Your task to perform on an android device: turn smart compose on in the gmail app Image 0: 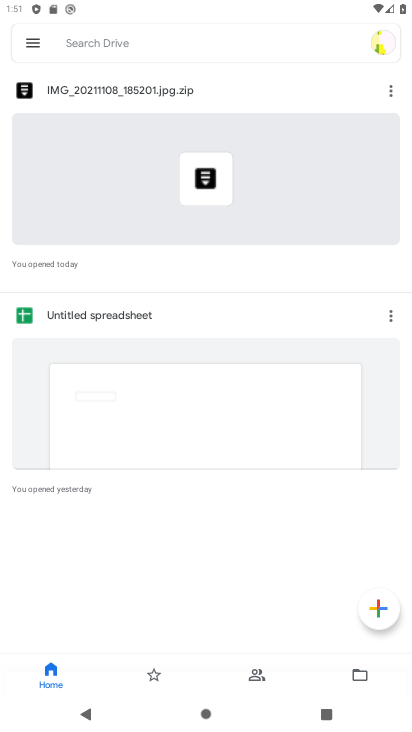
Step 0: click (219, 711)
Your task to perform on an android device: turn smart compose on in the gmail app Image 1: 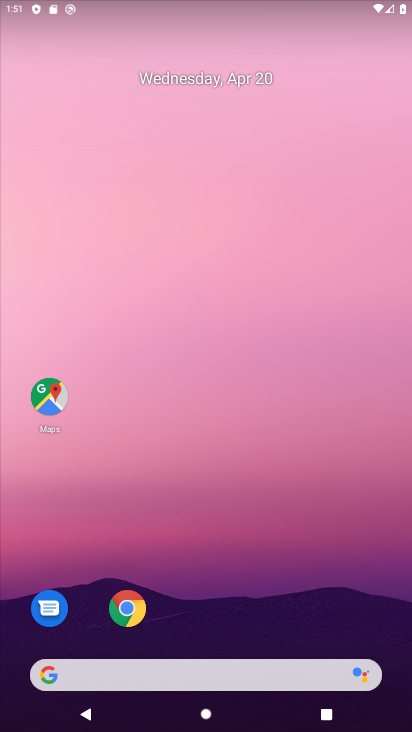
Step 1: drag from (254, 626) to (250, 374)
Your task to perform on an android device: turn smart compose on in the gmail app Image 2: 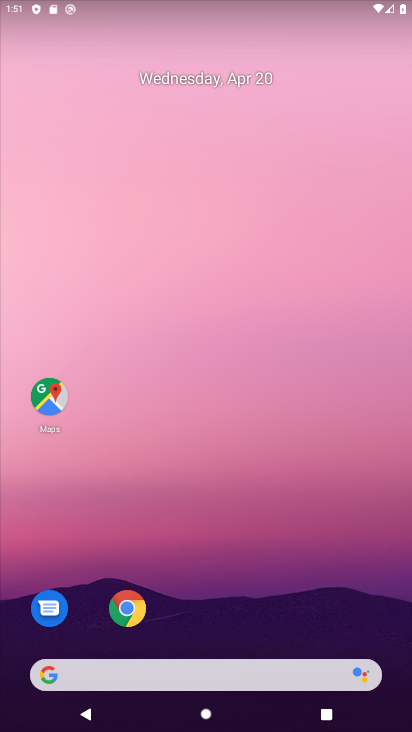
Step 2: drag from (250, 555) to (205, 125)
Your task to perform on an android device: turn smart compose on in the gmail app Image 3: 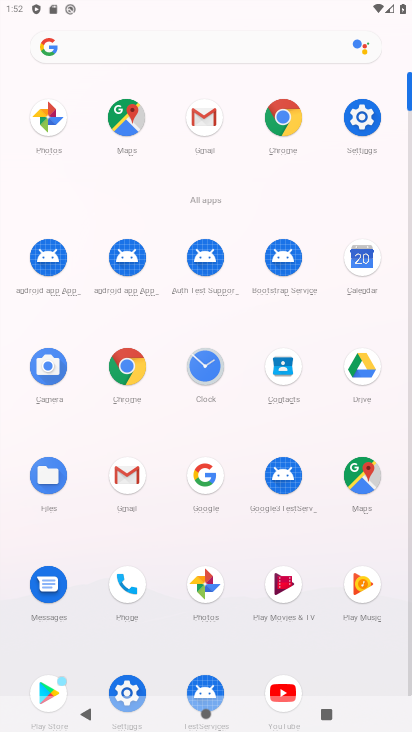
Step 3: click (144, 489)
Your task to perform on an android device: turn smart compose on in the gmail app Image 4: 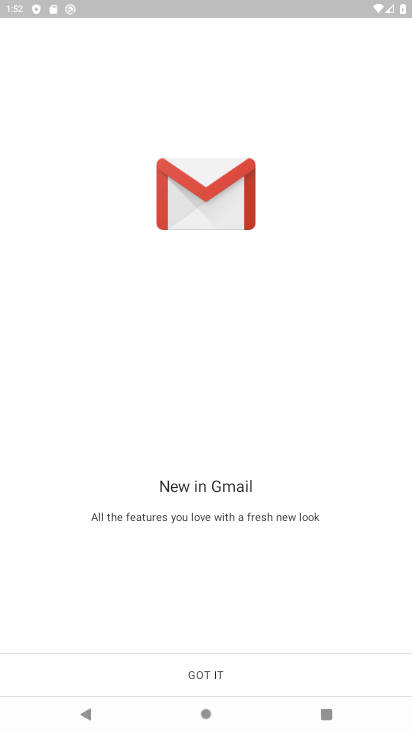
Step 4: click (206, 672)
Your task to perform on an android device: turn smart compose on in the gmail app Image 5: 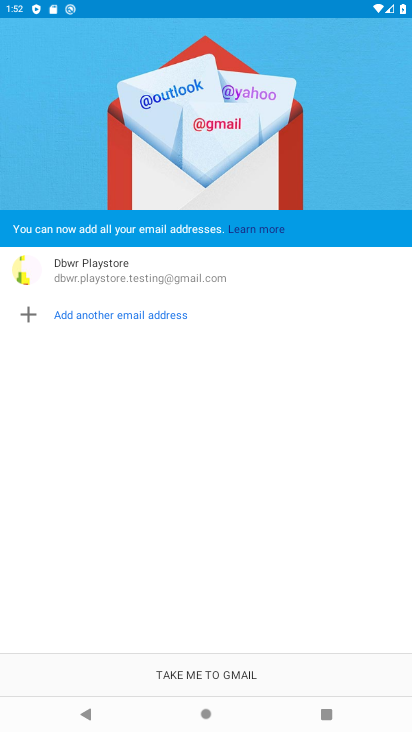
Step 5: click (199, 672)
Your task to perform on an android device: turn smart compose on in the gmail app Image 6: 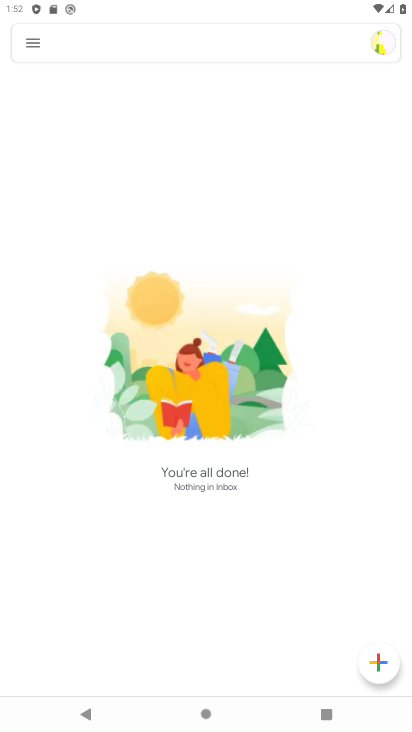
Step 6: click (22, 41)
Your task to perform on an android device: turn smart compose on in the gmail app Image 7: 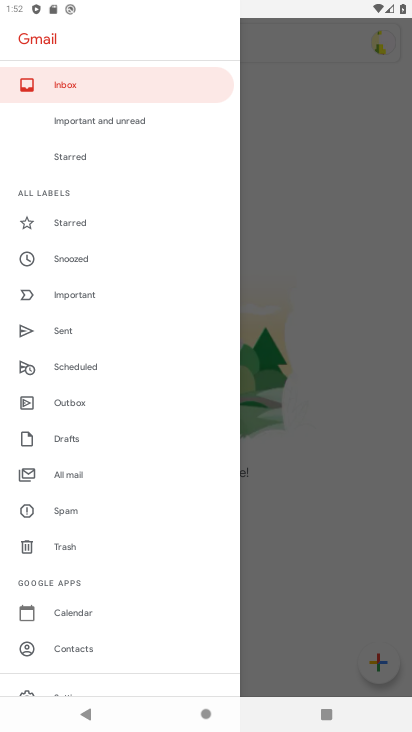
Step 7: drag from (123, 606) to (97, 264)
Your task to perform on an android device: turn smart compose on in the gmail app Image 8: 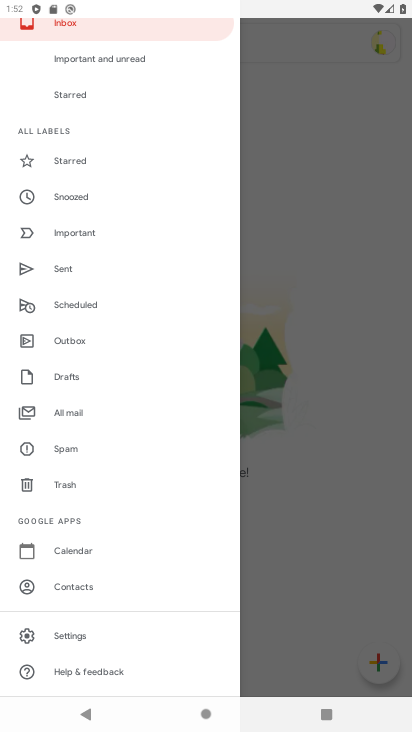
Step 8: click (94, 631)
Your task to perform on an android device: turn smart compose on in the gmail app Image 9: 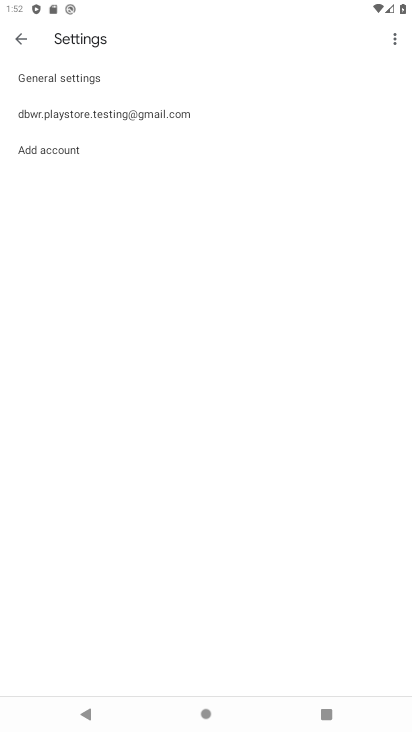
Step 9: click (95, 111)
Your task to perform on an android device: turn smart compose on in the gmail app Image 10: 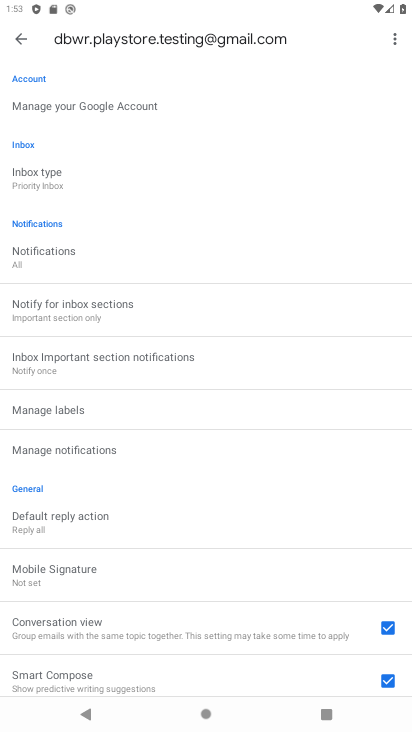
Step 10: drag from (170, 518) to (162, 295)
Your task to perform on an android device: turn smart compose on in the gmail app Image 11: 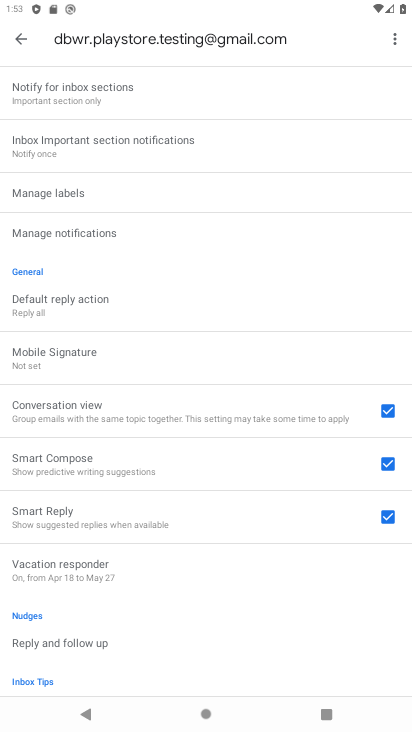
Step 11: click (257, 463)
Your task to perform on an android device: turn smart compose on in the gmail app Image 12: 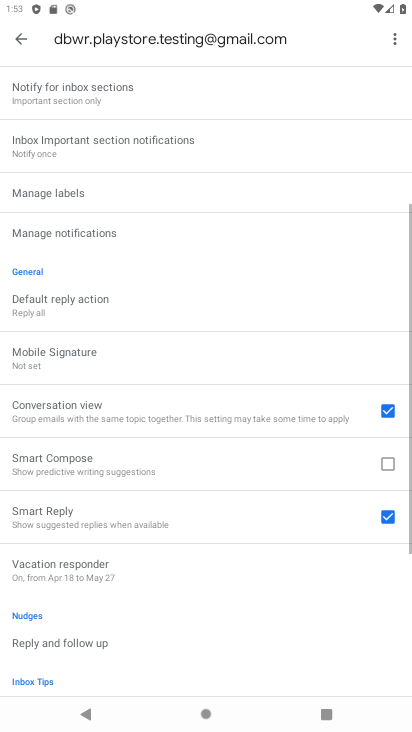
Step 12: task complete